Your task to perform on an android device: Open calendar and show me the first week of next month Image 0: 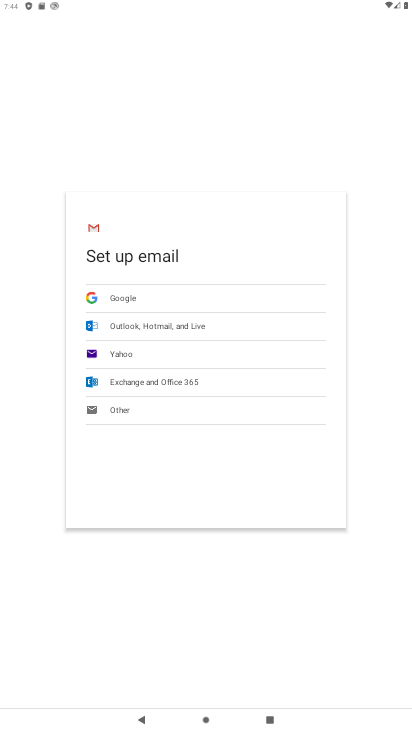
Step 0: press home button
Your task to perform on an android device: Open calendar and show me the first week of next month Image 1: 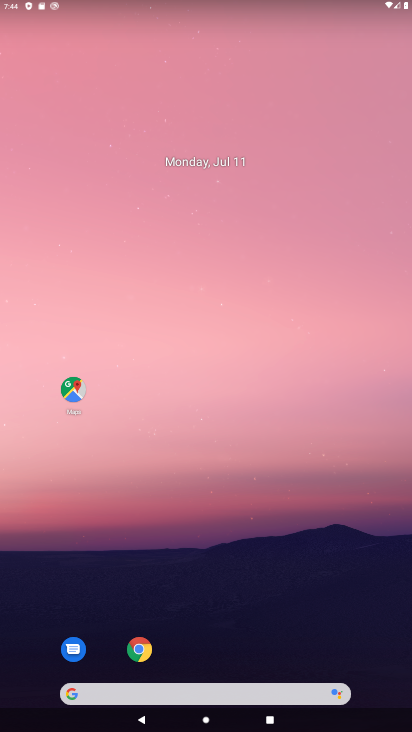
Step 1: drag from (261, 599) to (244, 18)
Your task to perform on an android device: Open calendar and show me the first week of next month Image 2: 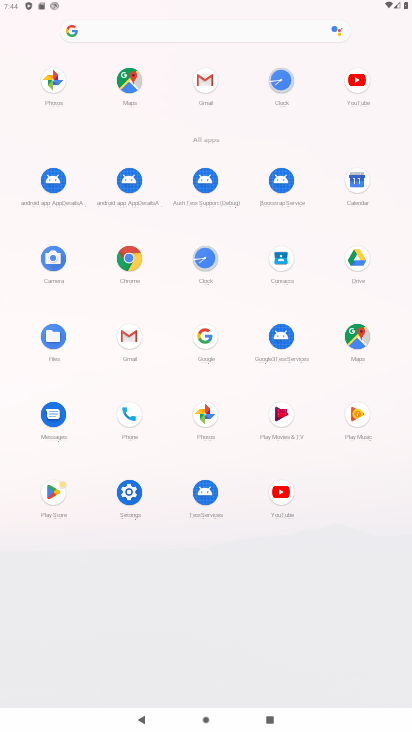
Step 2: click (355, 179)
Your task to perform on an android device: Open calendar and show me the first week of next month Image 3: 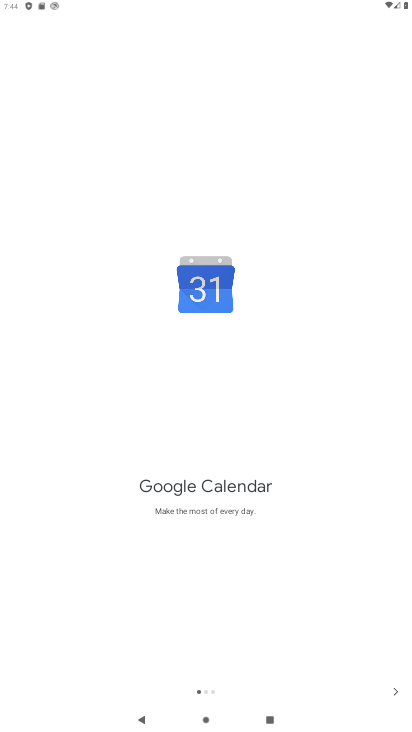
Step 3: click (396, 700)
Your task to perform on an android device: Open calendar and show me the first week of next month Image 4: 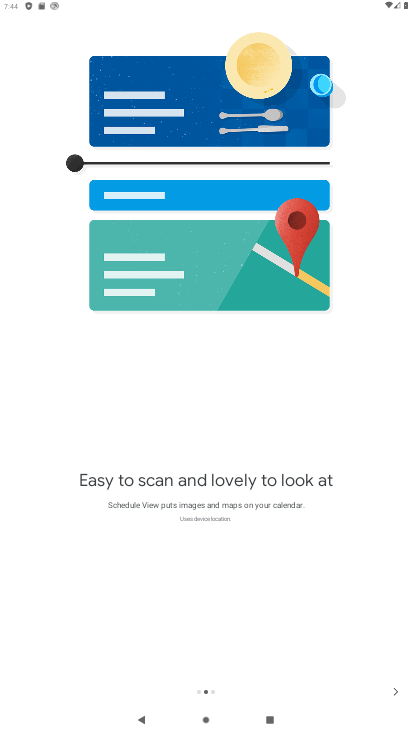
Step 4: click (396, 691)
Your task to perform on an android device: Open calendar and show me the first week of next month Image 5: 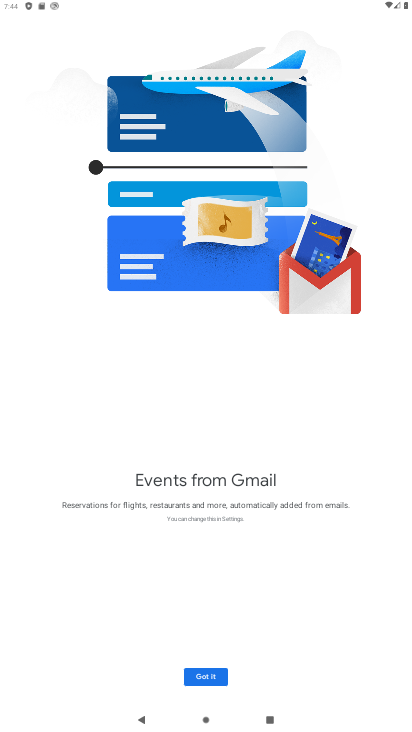
Step 5: click (199, 677)
Your task to perform on an android device: Open calendar and show me the first week of next month Image 6: 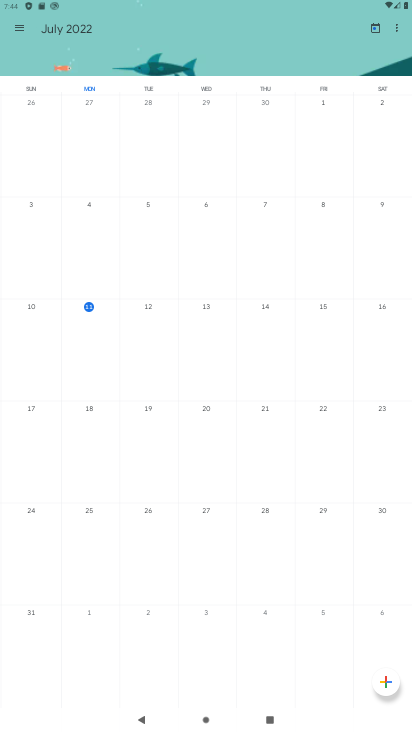
Step 6: drag from (368, 369) to (4, 319)
Your task to perform on an android device: Open calendar and show me the first week of next month Image 7: 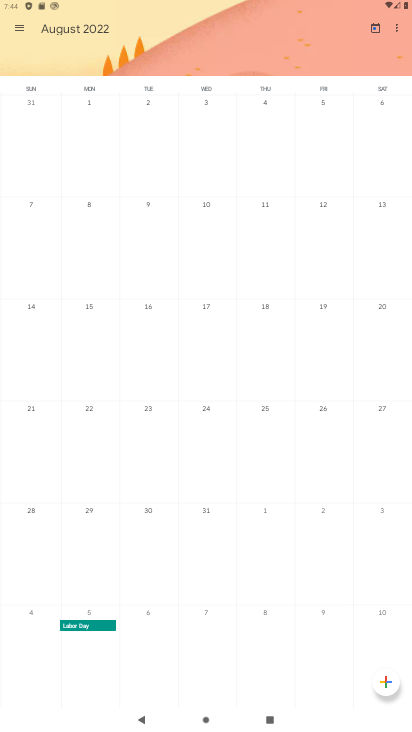
Step 7: click (108, 139)
Your task to perform on an android device: Open calendar and show me the first week of next month Image 8: 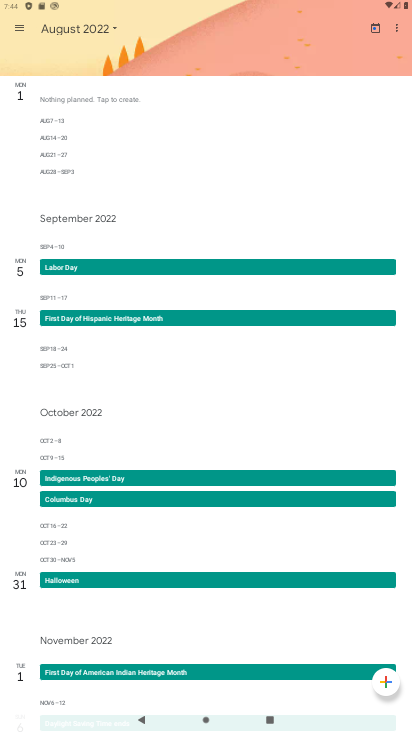
Step 8: task complete